Your task to perform on an android device: What's on my calendar tomorrow? Image 0: 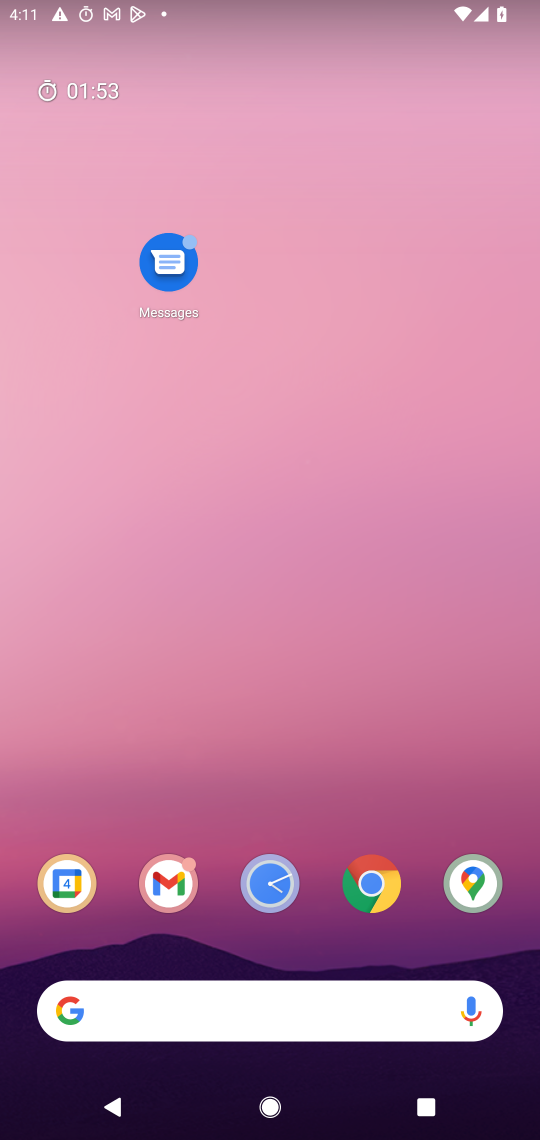
Step 0: drag from (324, 901) to (327, 66)
Your task to perform on an android device: What's on my calendar tomorrow? Image 1: 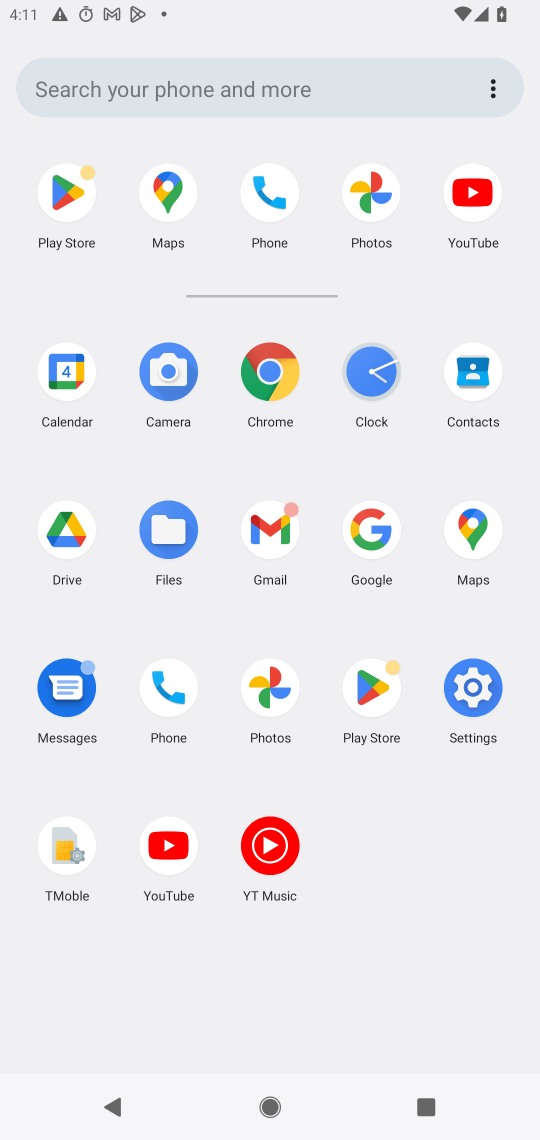
Step 1: click (62, 371)
Your task to perform on an android device: What's on my calendar tomorrow? Image 2: 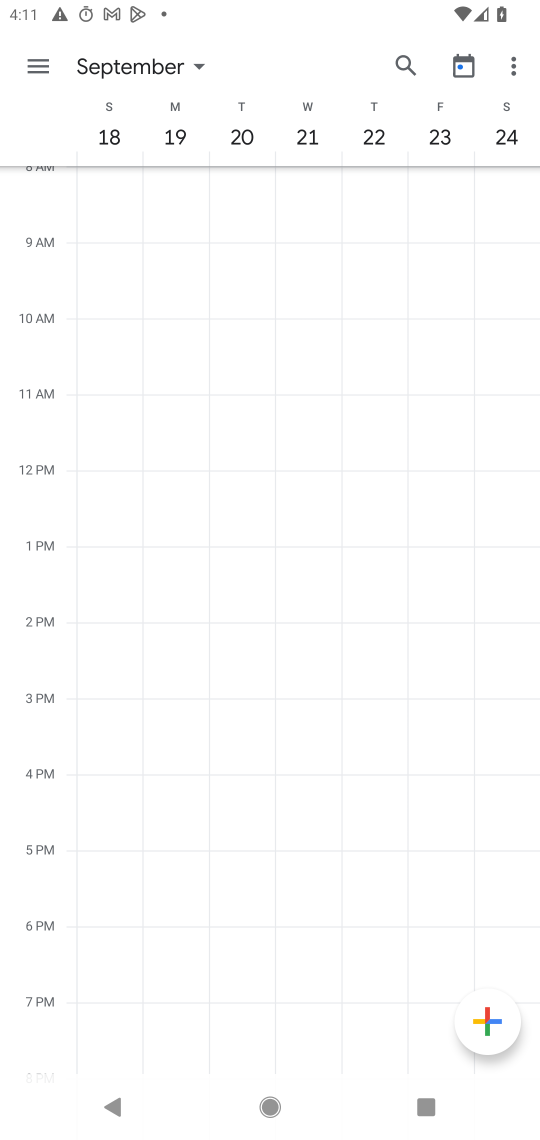
Step 2: click (198, 67)
Your task to perform on an android device: What's on my calendar tomorrow? Image 3: 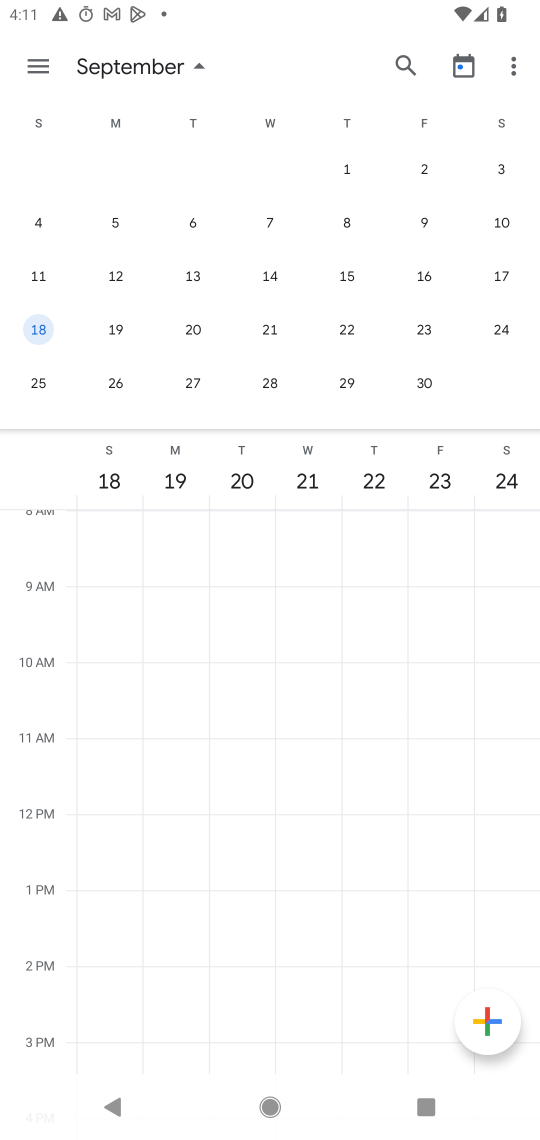
Step 3: drag from (82, 301) to (538, 313)
Your task to perform on an android device: What's on my calendar tomorrow? Image 4: 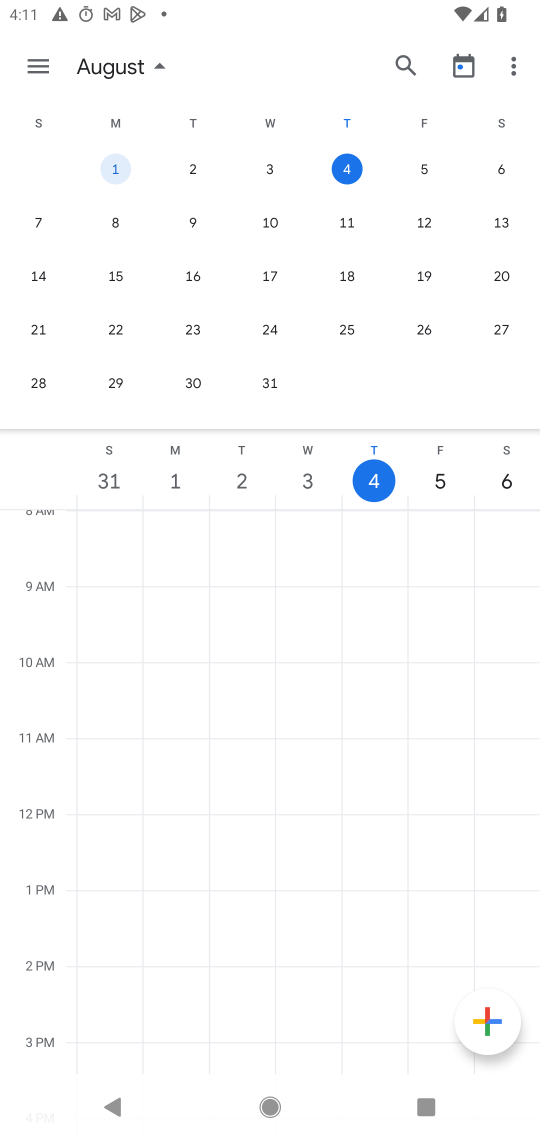
Step 4: click (422, 167)
Your task to perform on an android device: What's on my calendar tomorrow? Image 5: 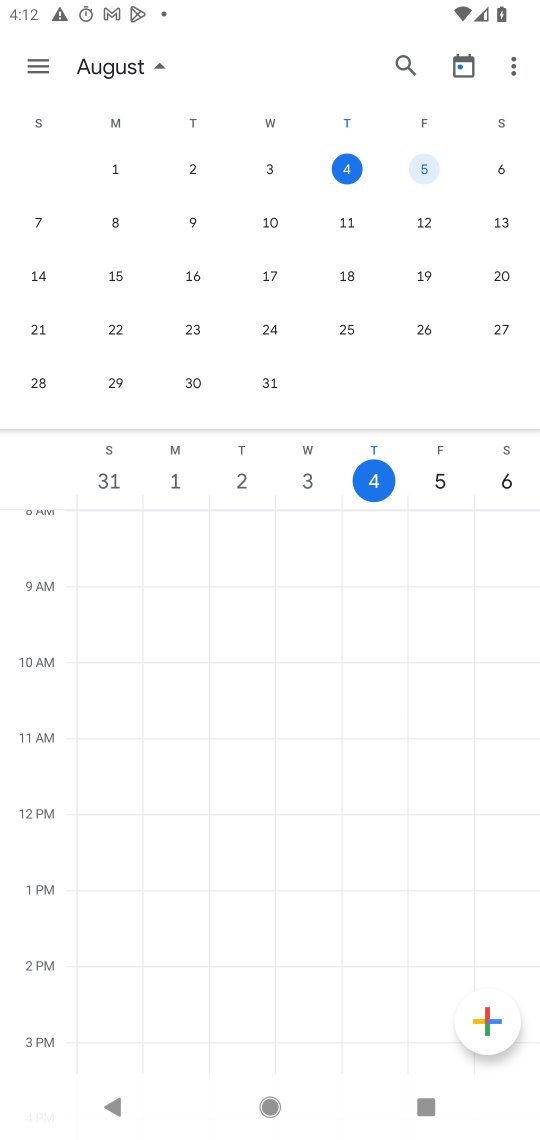
Step 5: click (438, 479)
Your task to perform on an android device: What's on my calendar tomorrow? Image 6: 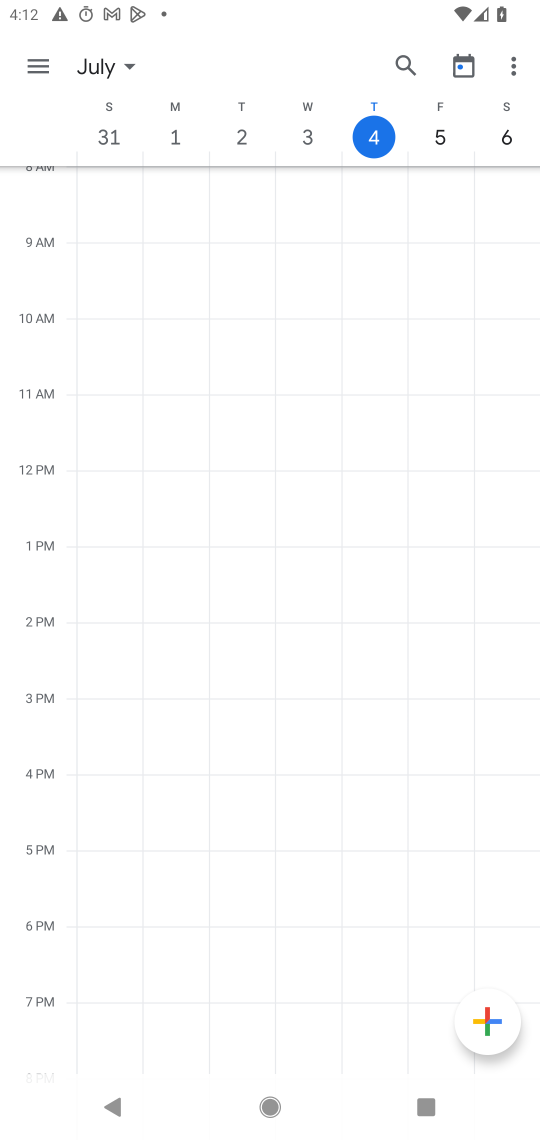
Step 6: click (433, 137)
Your task to perform on an android device: What's on my calendar tomorrow? Image 7: 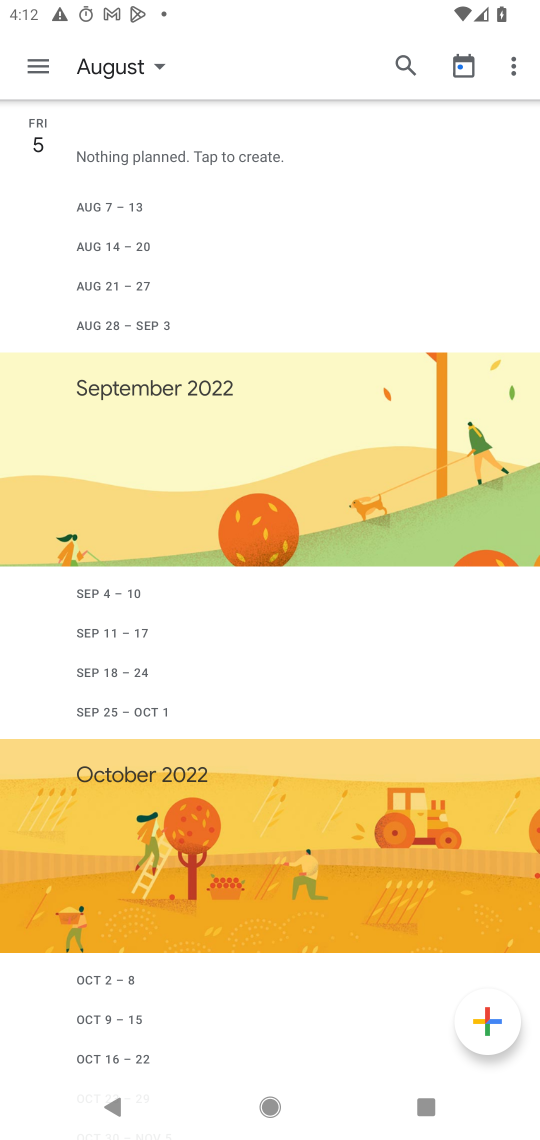
Step 7: task complete